Your task to perform on an android device: Do I have any events this weekend? Image 0: 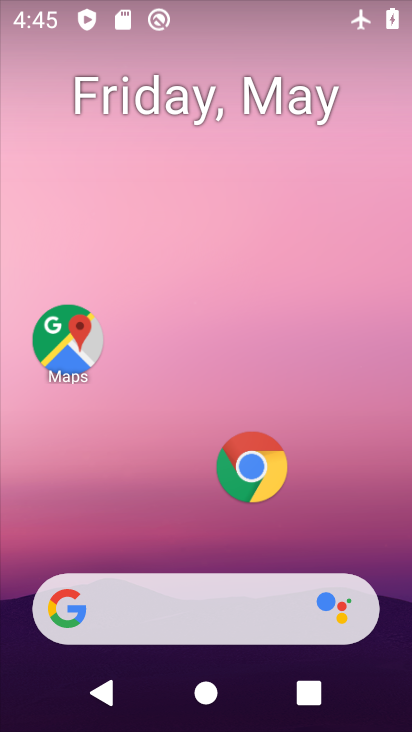
Step 0: drag from (214, 599) to (66, 131)
Your task to perform on an android device: Do I have any events this weekend? Image 1: 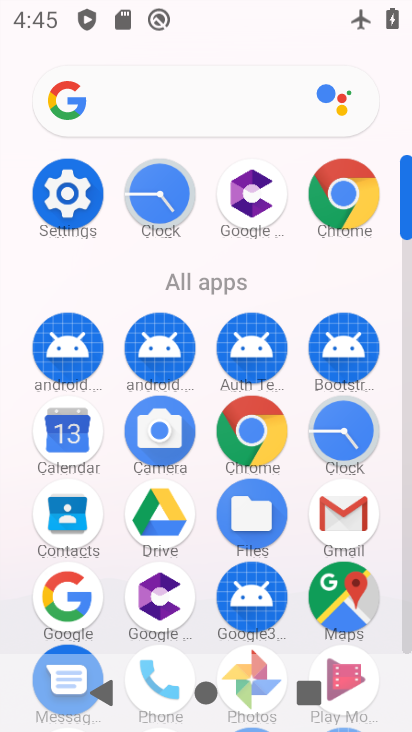
Step 1: click (71, 422)
Your task to perform on an android device: Do I have any events this weekend? Image 2: 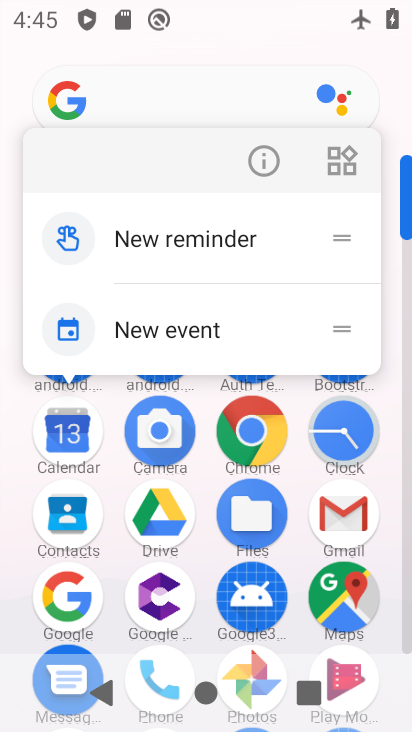
Step 2: click (67, 437)
Your task to perform on an android device: Do I have any events this weekend? Image 3: 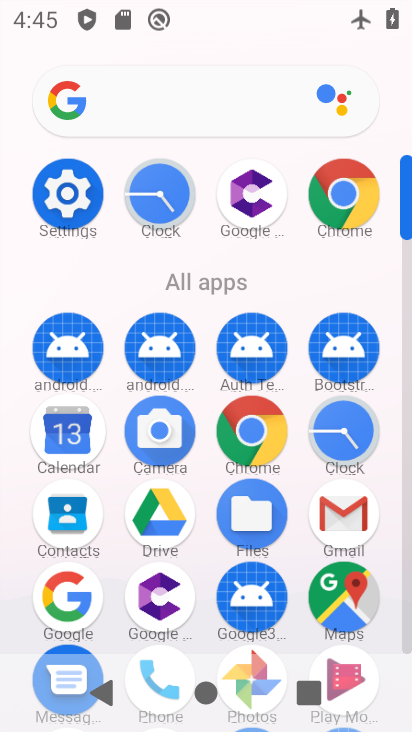
Step 3: click (67, 437)
Your task to perform on an android device: Do I have any events this weekend? Image 4: 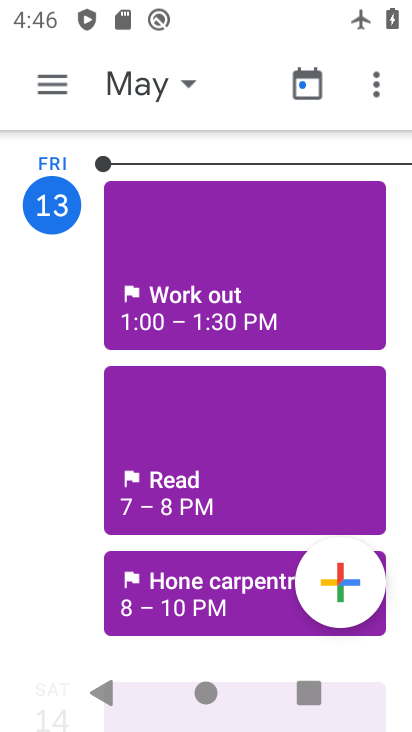
Step 4: drag from (125, 367) to (115, 139)
Your task to perform on an android device: Do I have any events this weekend? Image 5: 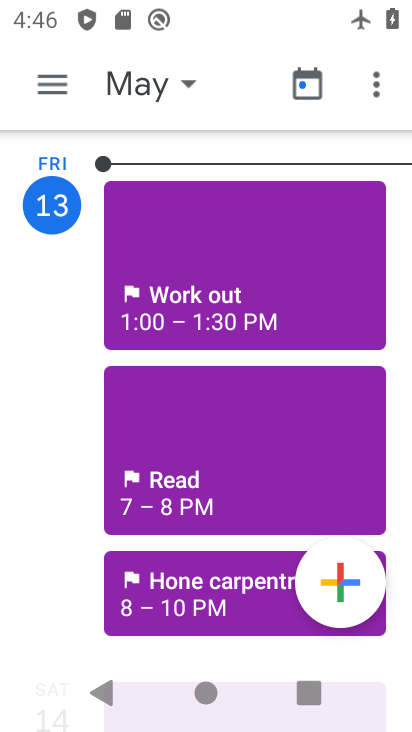
Step 5: drag from (217, 313) to (217, 208)
Your task to perform on an android device: Do I have any events this weekend? Image 6: 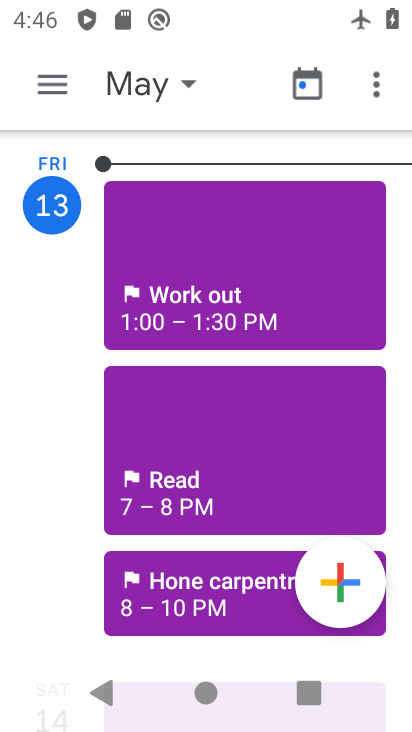
Step 6: drag from (239, 347) to (261, 193)
Your task to perform on an android device: Do I have any events this weekend? Image 7: 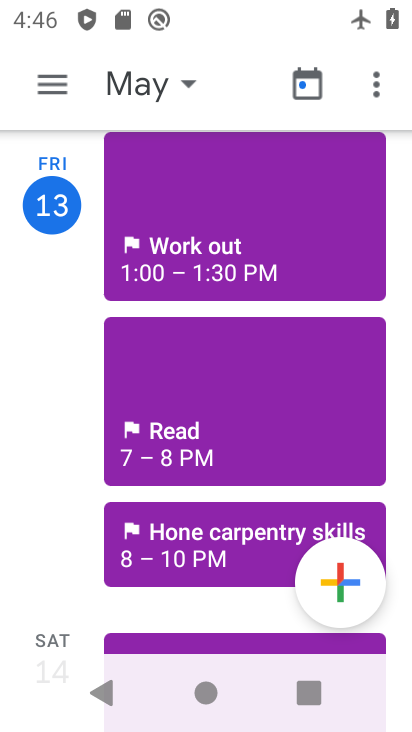
Step 7: drag from (216, 463) to (180, 94)
Your task to perform on an android device: Do I have any events this weekend? Image 8: 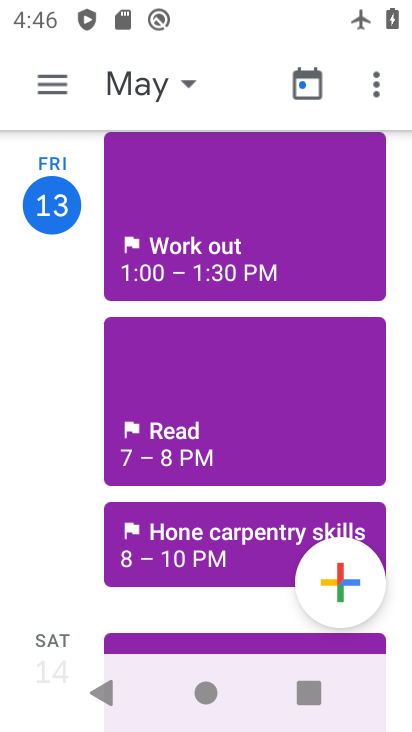
Step 8: drag from (142, 451) to (222, 236)
Your task to perform on an android device: Do I have any events this weekend? Image 9: 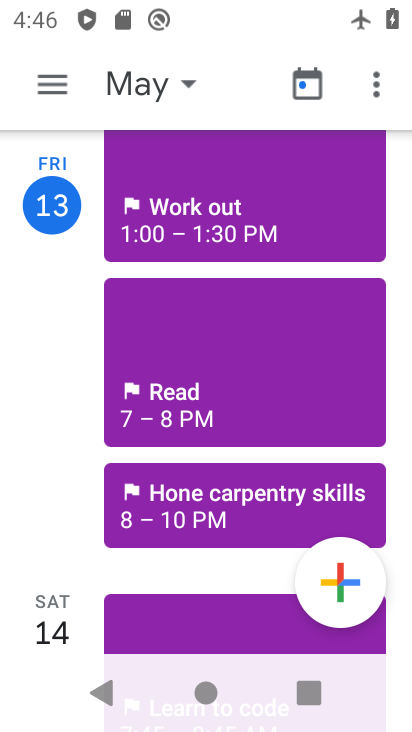
Step 9: click (215, 490)
Your task to perform on an android device: Do I have any events this weekend? Image 10: 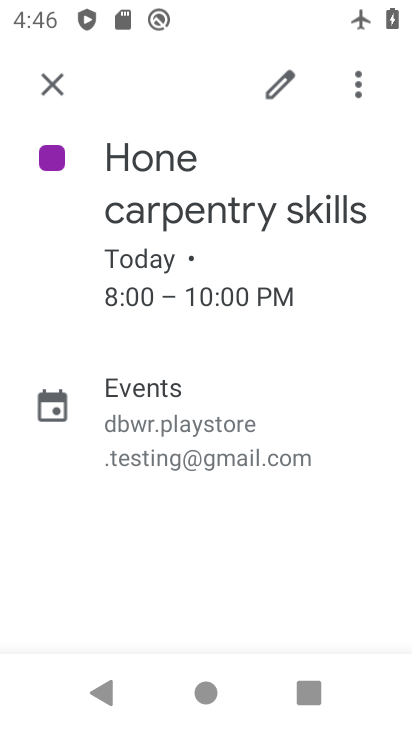
Step 10: click (158, 632)
Your task to perform on an android device: Do I have any events this weekend? Image 11: 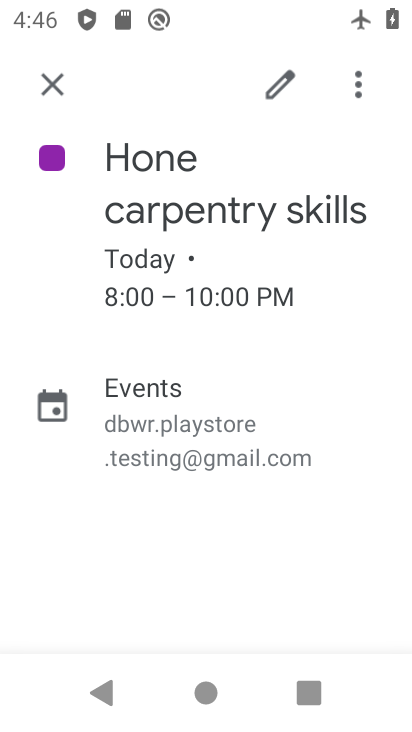
Step 11: click (44, 77)
Your task to perform on an android device: Do I have any events this weekend? Image 12: 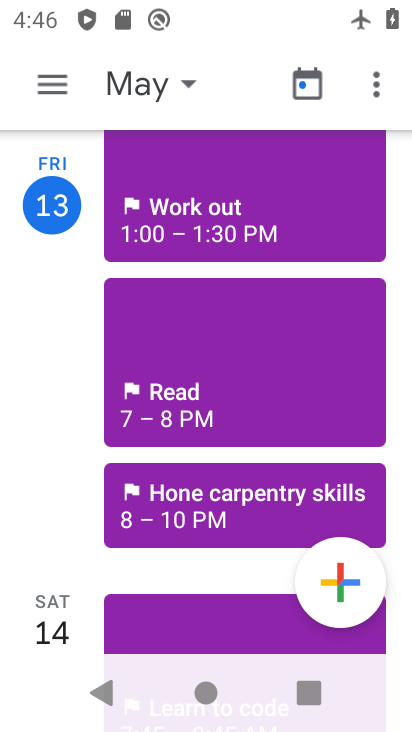
Step 12: task complete